Your task to perform on an android device: turn on bluetooth scan Image 0: 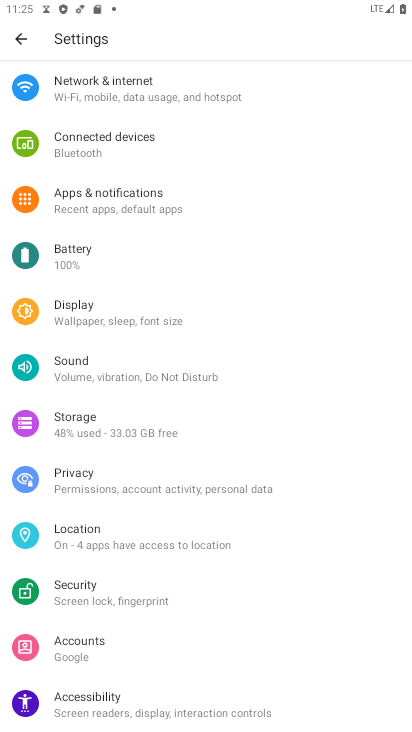
Step 0: click (91, 144)
Your task to perform on an android device: turn on bluetooth scan Image 1: 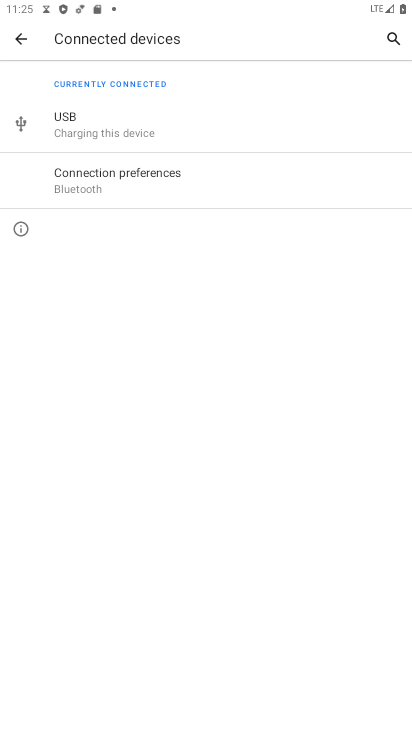
Step 1: click (84, 189)
Your task to perform on an android device: turn on bluetooth scan Image 2: 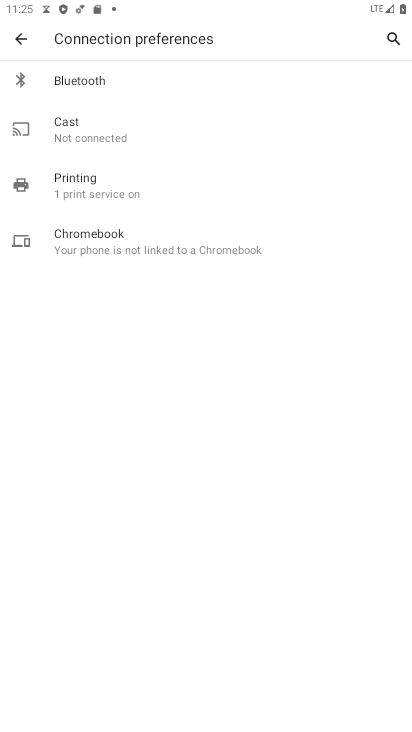
Step 2: click (104, 76)
Your task to perform on an android device: turn on bluetooth scan Image 3: 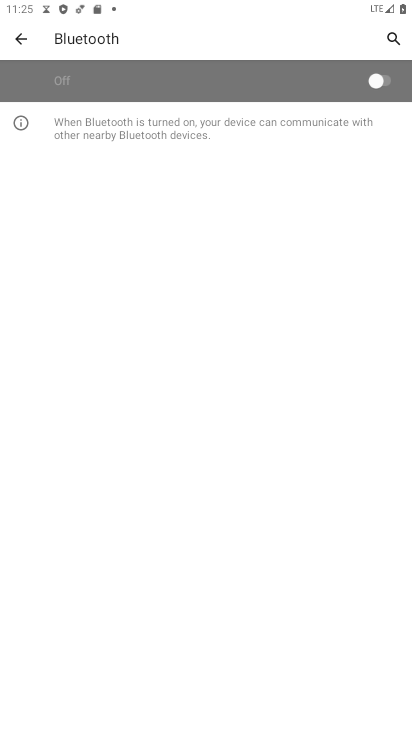
Step 3: task complete